Your task to perform on an android device: open chrome and create a bookmark for the current page Image 0: 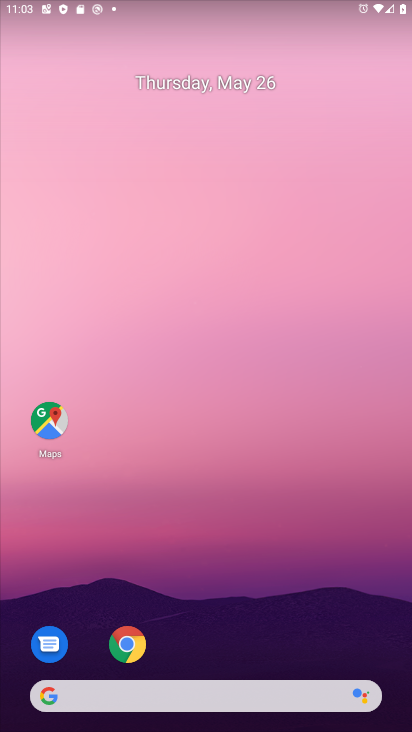
Step 0: click (131, 640)
Your task to perform on an android device: open chrome and create a bookmark for the current page Image 1: 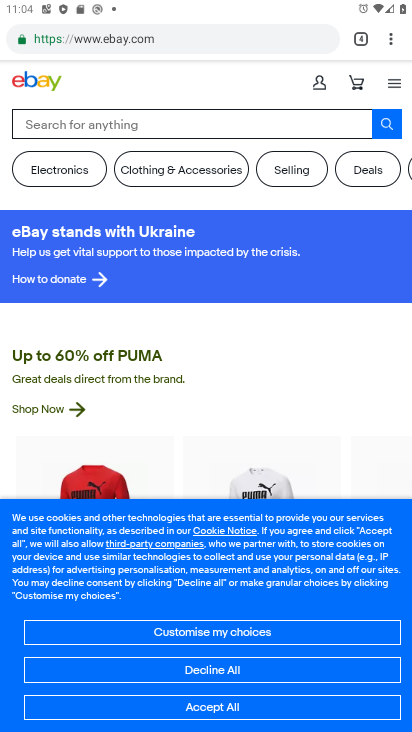
Step 1: click (391, 40)
Your task to perform on an android device: open chrome and create a bookmark for the current page Image 2: 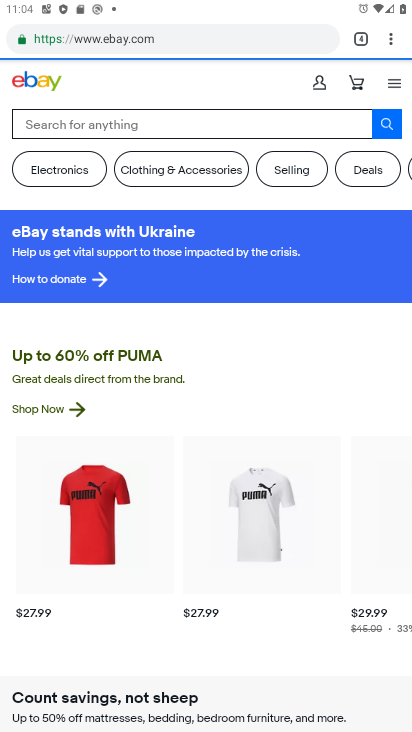
Step 2: task complete